Your task to perform on an android device: Is it going to rain today? Image 0: 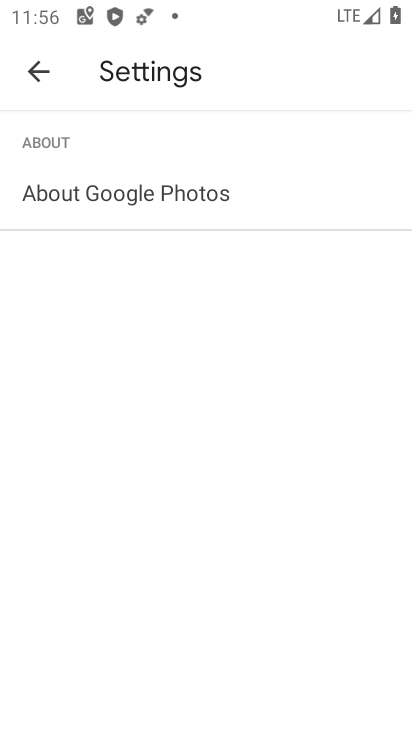
Step 0: press home button
Your task to perform on an android device: Is it going to rain today? Image 1: 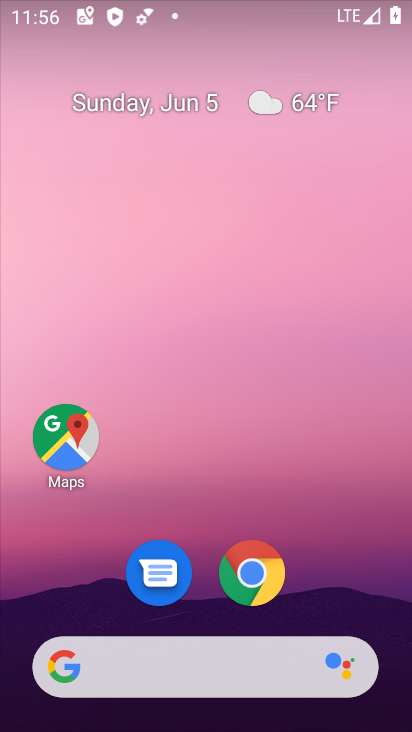
Step 1: click (141, 676)
Your task to perform on an android device: Is it going to rain today? Image 2: 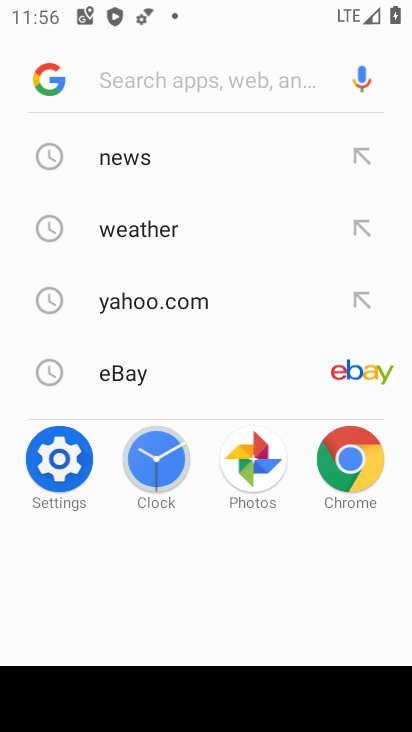
Step 2: click (126, 237)
Your task to perform on an android device: Is it going to rain today? Image 3: 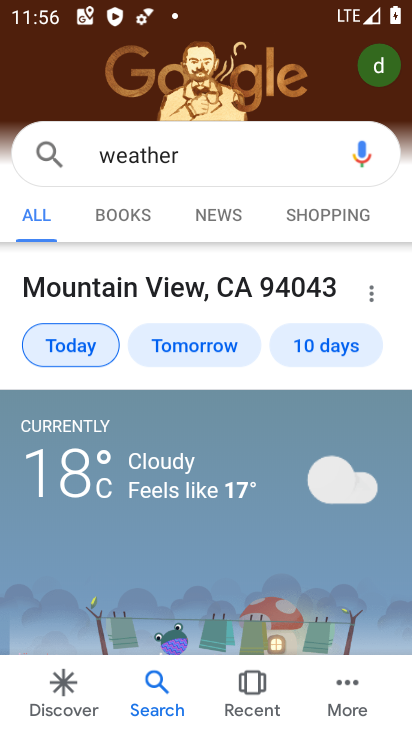
Step 3: task complete